Your task to perform on an android device: set the timer Image 0: 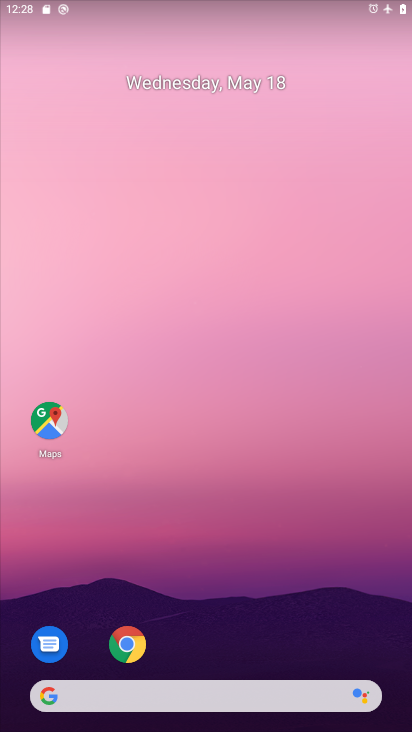
Step 0: drag from (226, 650) to (275, 119)
Your task to perform on an android device: set the timer Image 1: 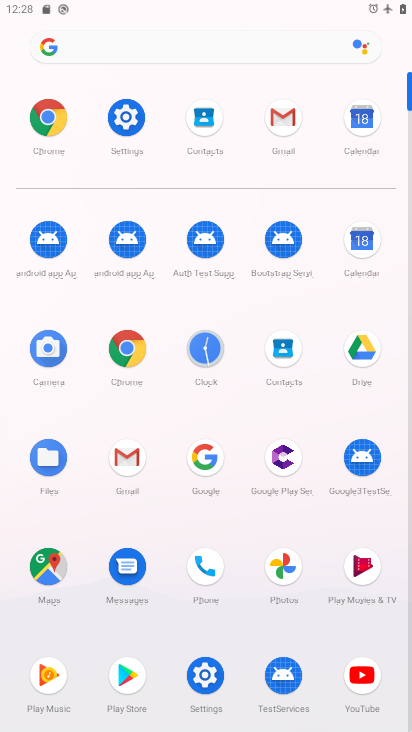
Step 1: click (206, 340)
Your task to perform on an android device: set the timer Image 2: 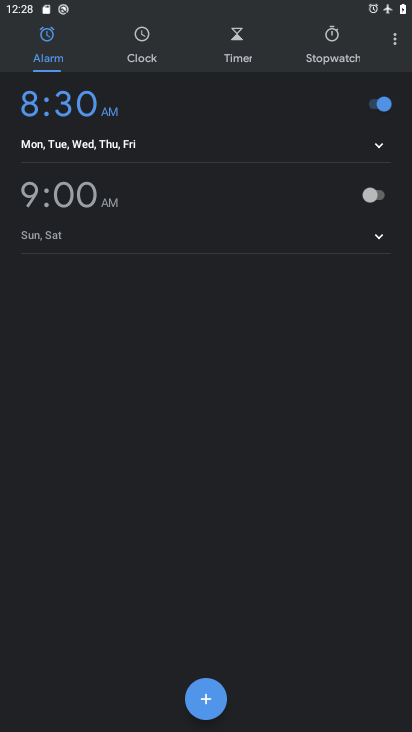
Step 2: click (233, 32)
Your task to perform on an android device: set the timer Image 3: 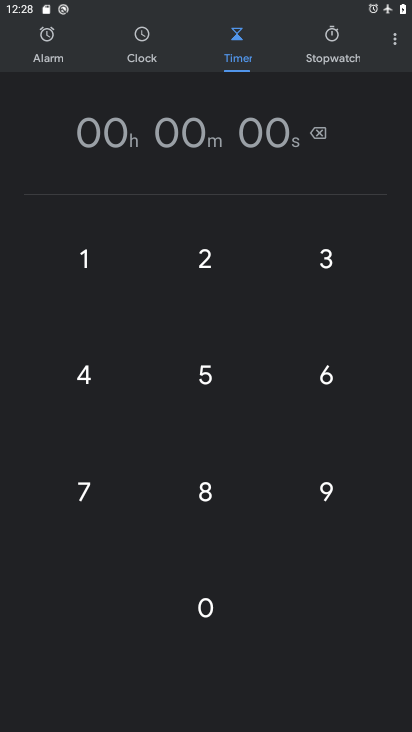
Step 3: click (211, 368)
Your task to perform on an android device: set the timer Image 4: 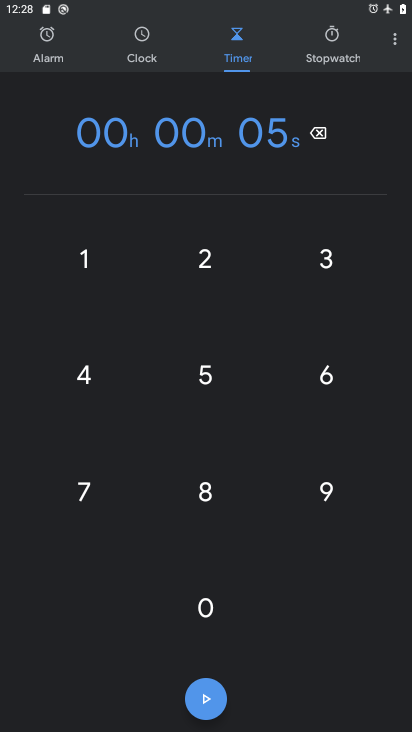
Step 4: click (206, 591)
Your task to perform on an android device: set the timer Image 5: 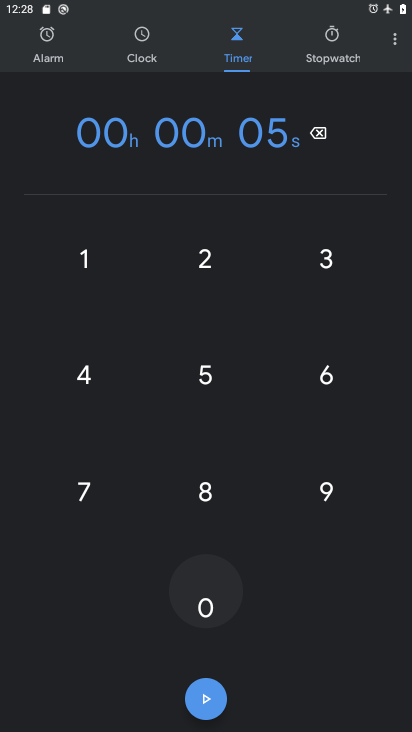
Step 5: click (206, 591)
Your task to perform on an android device: set the timer Image 6: 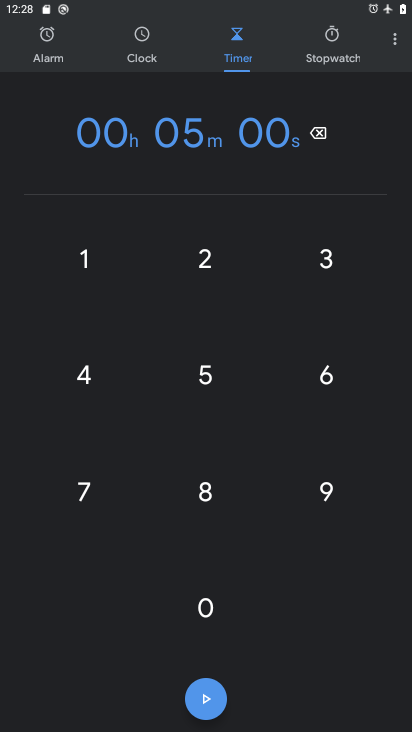
Step 6: click (214, 693)
Your task to perform on an android device: set the timer Image 7: 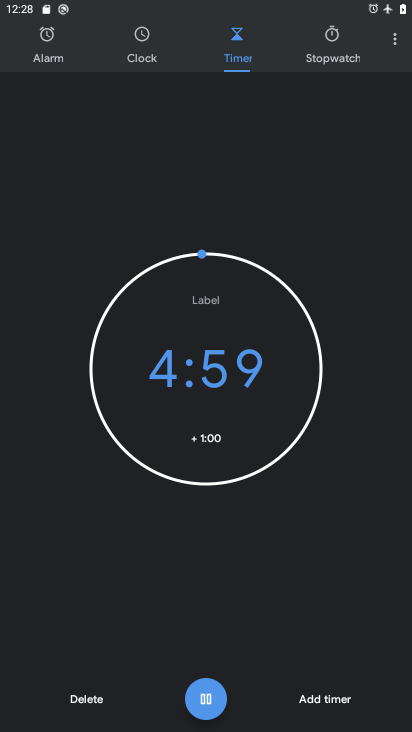
Step 7: task complete